Your task to perform on an android device: turn off translation in the chrome app Image 0: 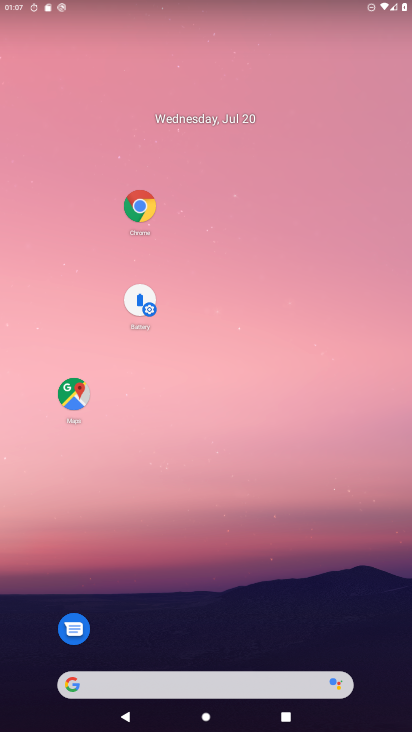
Step 0: drag from (185, 645) to (237, 90)
Your task to perform on an android device: turn off translation in the chrome app Image 1: 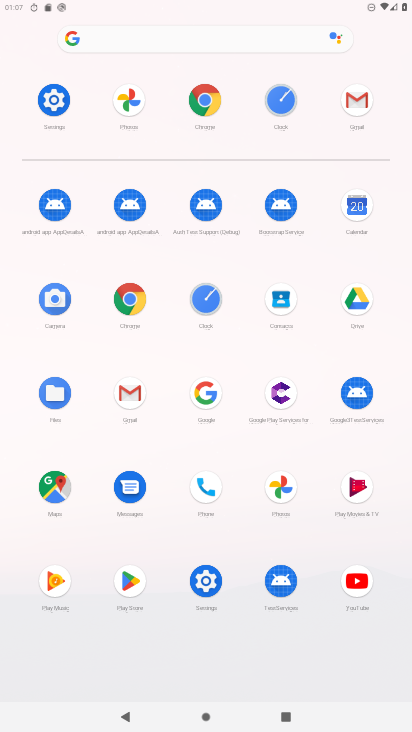
Step 1: click (129, 297)
Your task to perform on an android device: turn off translation in the chrome app Image 2: 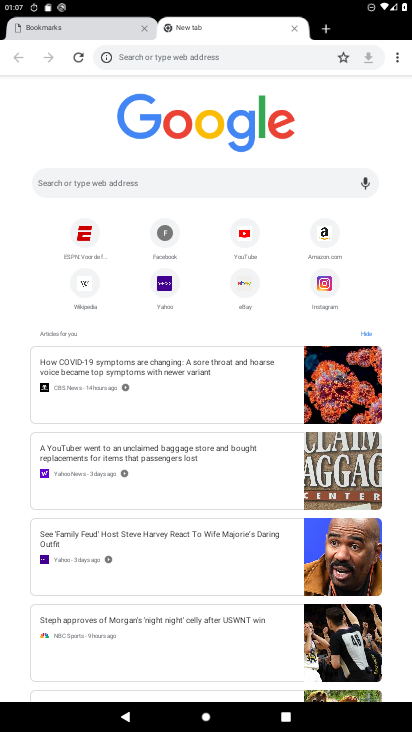
Step 2: drag from (393, 57) to (289, 261)
Your task to perform on an android device: turn off translation in the chrome app Image 3: 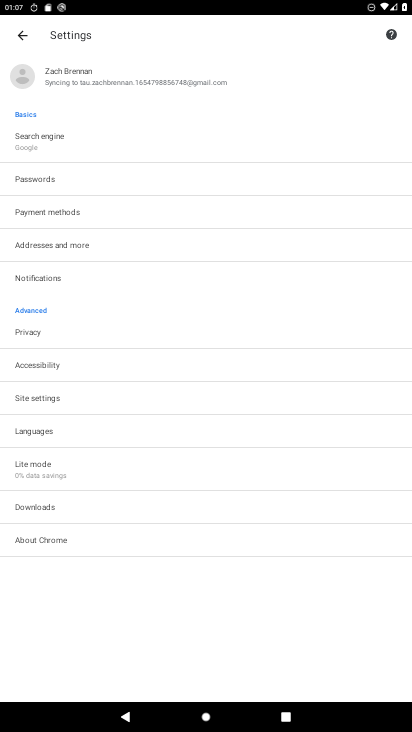
Step 3: click (51, 433)
Your task to perform on an android device: turn off translation in the chrome app Image 4: 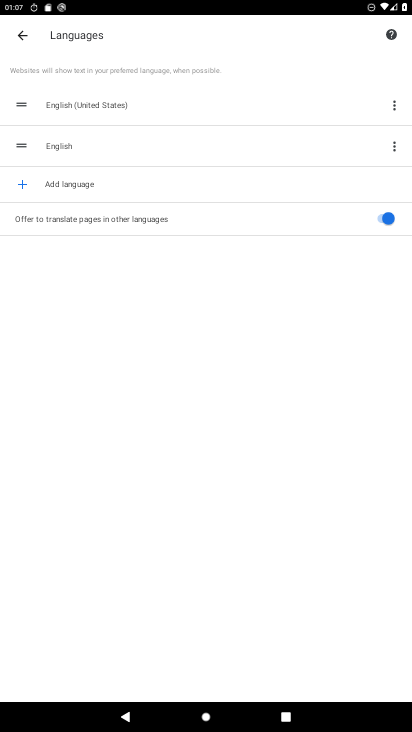
Step 4: click (365, 228)
Your task to perform on an android device: turn off translation in the chrome app Image 5: 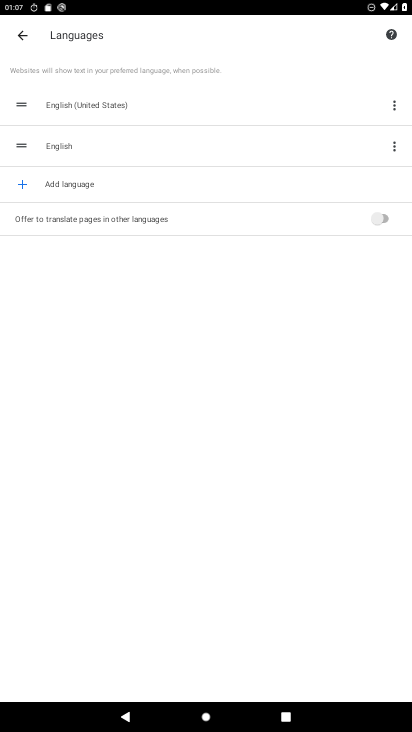
Step 5: task complete